Your task to perform on an android device: open app "Yahoo Mail" (install if not already installed) Image 0: 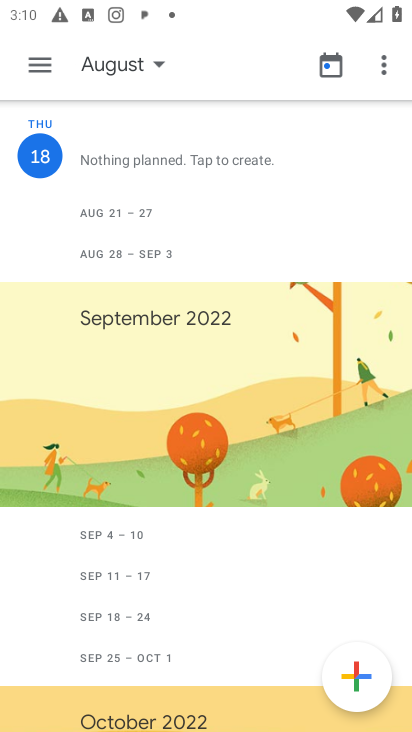
Step 0: press home button
Your task to perform on an android device: open app "Yahoo Mail" (install if not already installed) Image 1: 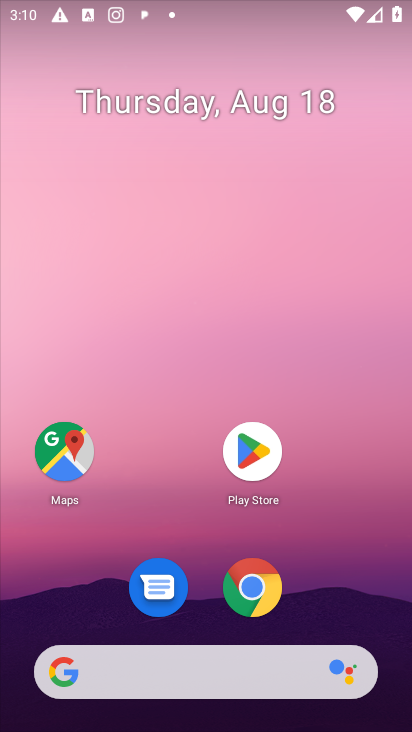
Step 1: click (249, 442)
Your task to perform on an android device: open app "Yahoo Mail" (install if not already installed) Image 2: 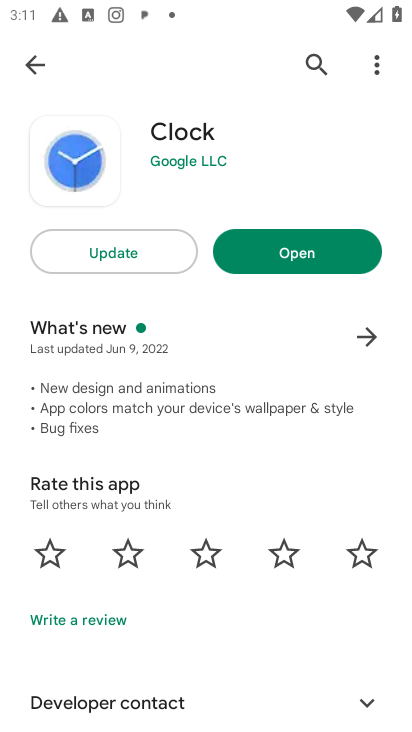
Step 2: click (308, 60)
Your task to perform on an android device: open app "Yahoo Mail" (install if not already installed) Image 3: 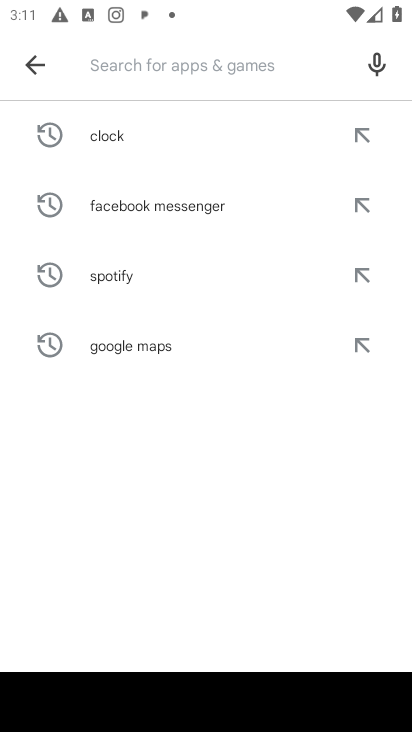
Step 3: type "Yahoo Mail"
Your task to perform on an android device: open app "Yahoo Mail" (install if not already installed) Image 4: 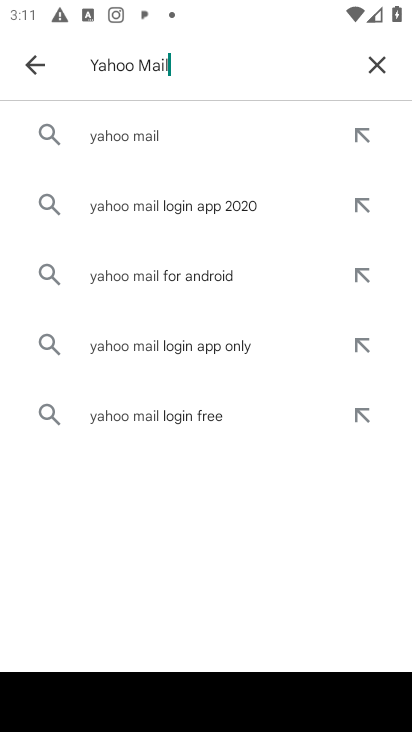
Step 4: click (147, 136)
Your task to perform on an android device: open app "Yahoo Mail" (install if not already installed) Image 5: 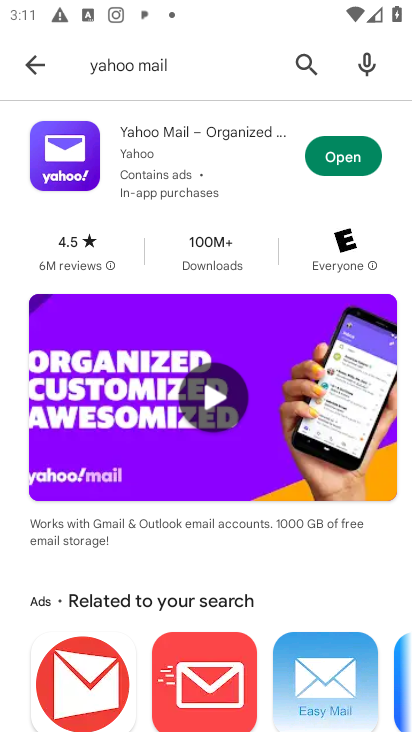
Step 5: click (331, 162)
Your task to perform on an android device: open app "Yahoo Mail" (install if not already installed) Image 6: 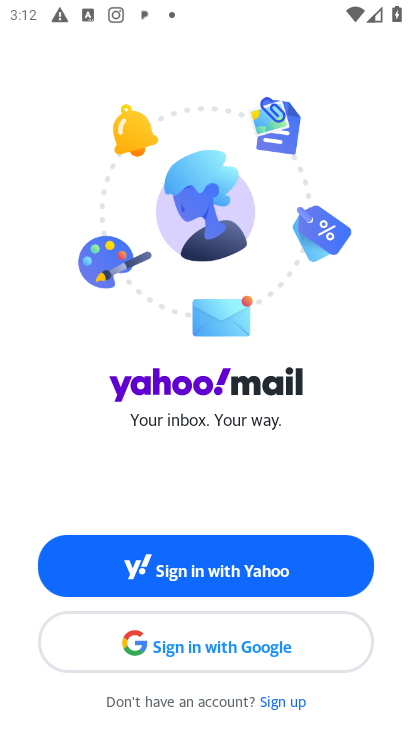
Step 6: task complete